Your task to perform on an android device: Open Yahoo.com Image 0: 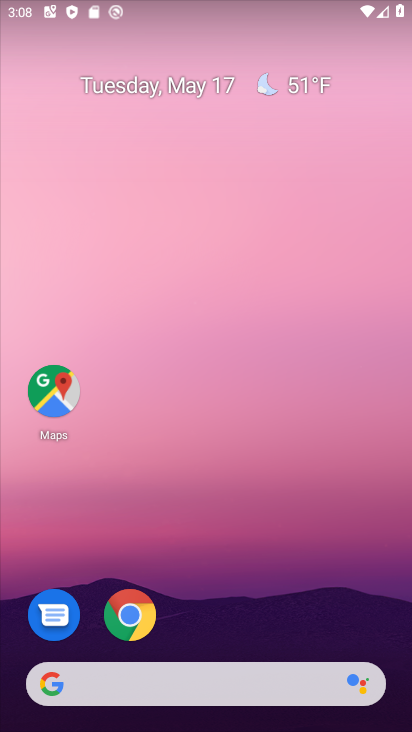
Step 0: press home button
Your task to perform on an android device: Open Yahoo.com Image 1: 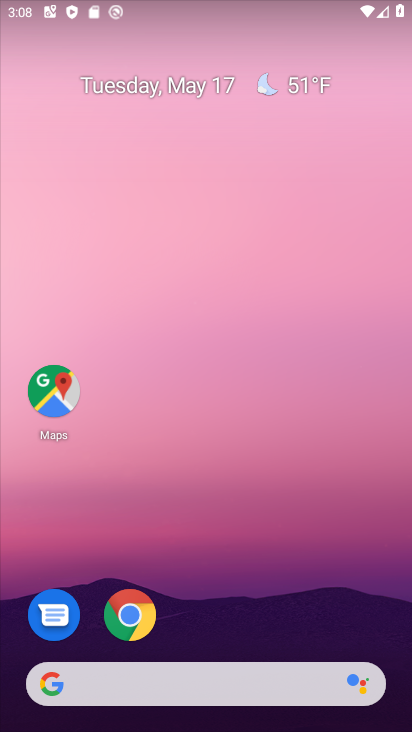
Step 1: click (122, 605)
Your task to perform on an android device: Open Yahoo.com Image 2: 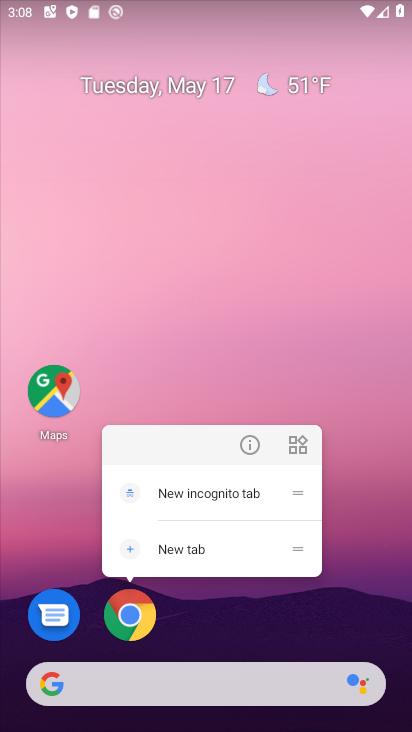
Step 2: click (132, 606)
Your task to perform on an android device: Open Yahoo.com Image 3: 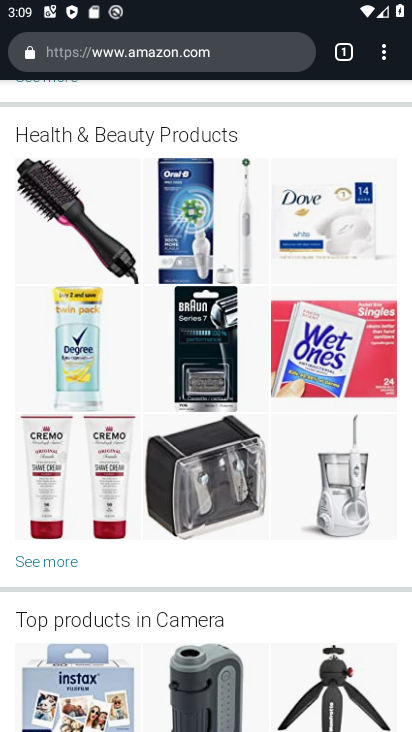
Step 3: click (340, 47)
Your task to perform on an android device: Open Yahoo.com Image 4: 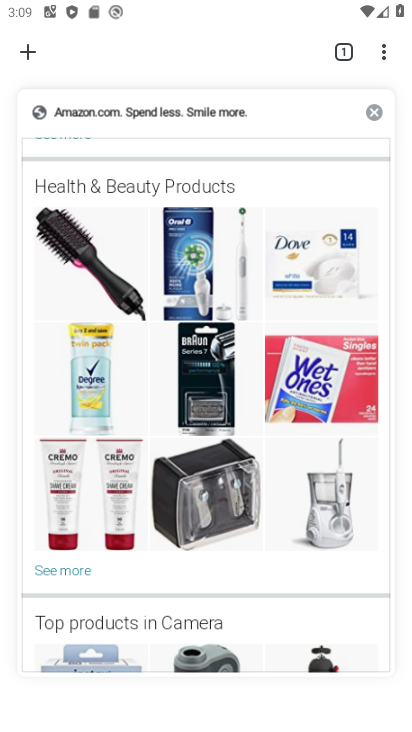
Step 4: click (375, 108)
Your task to perform on an android device: Open Yahoo.com Image 5: 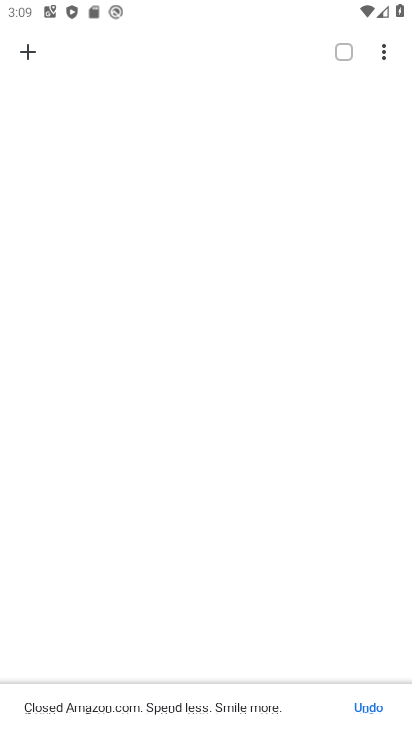
Step 5: click (31, 51)
Your task to perform on an android device: Open Yahoo.com Image 6: 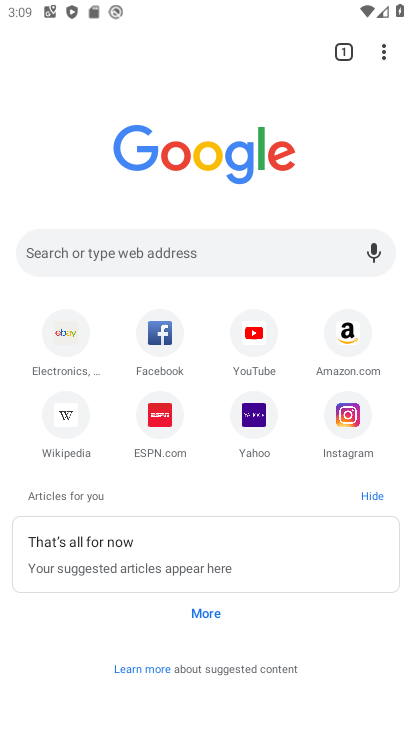
Step 6: click (256, 410)
Your task to perform on an android device: Open Yahoo.com Image 7: 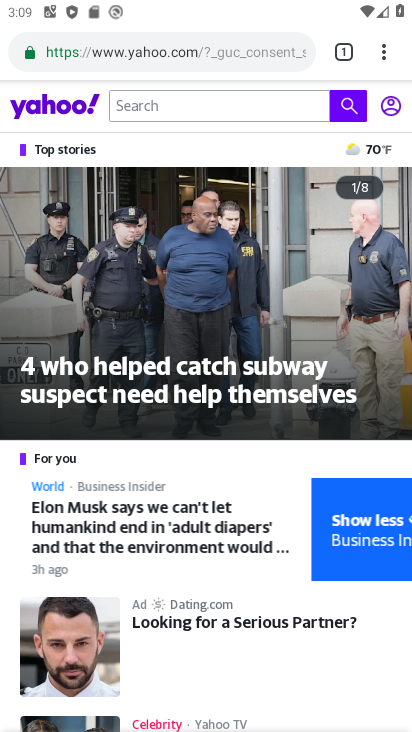
Step 7: task complete